Your task to perform on an android device: Add logitech g903 to the cart on costco Image 0: 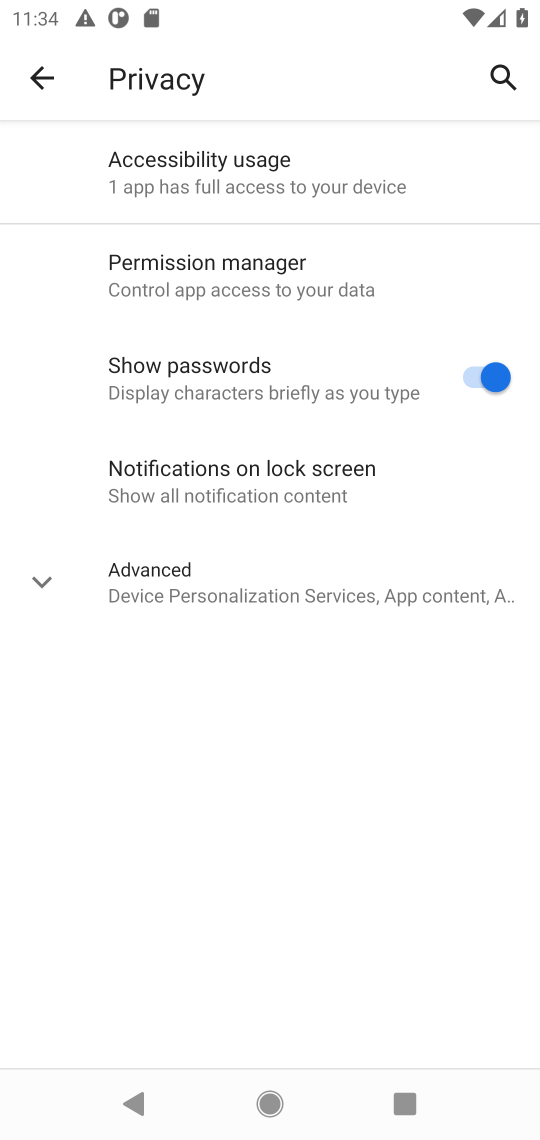
Step 0: press home button
Your task to perform on an android device: Add logitech g903 to the cart on costco Image 1: 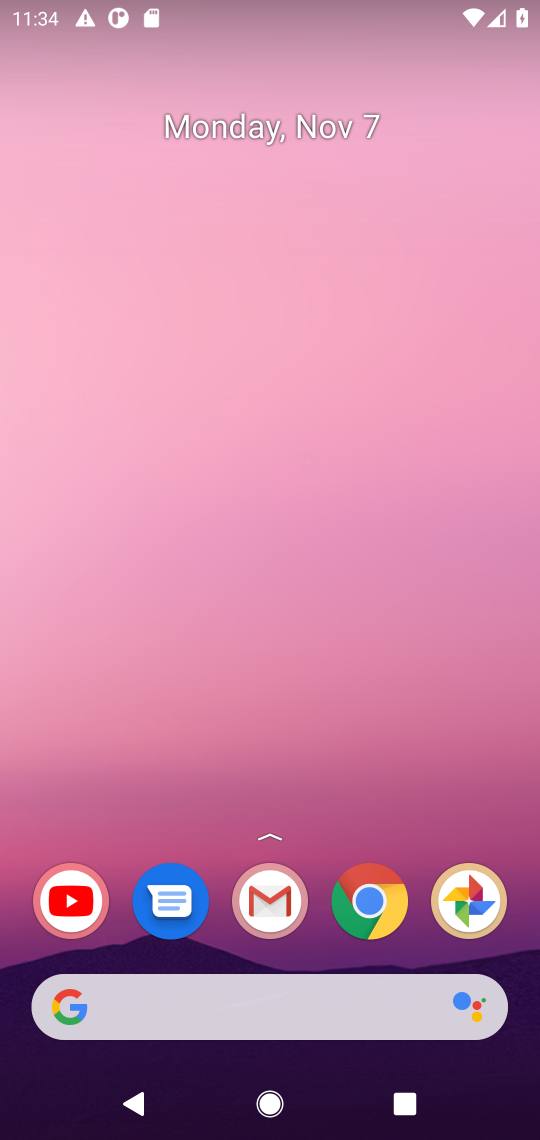
Step 1: click (356, 924)
Your task to perform on an android device: Add logitech g903 to the cart on costco Image 2: 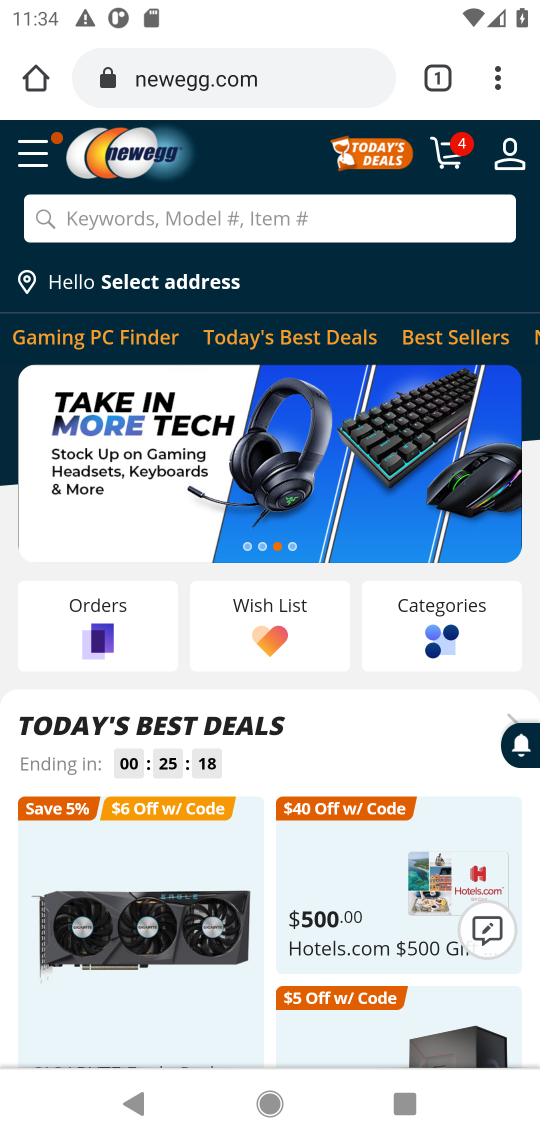
Step 2: click (236, 93)
Your task to perform on an android device: Add logitech g903 to the cart on costco Image 3: 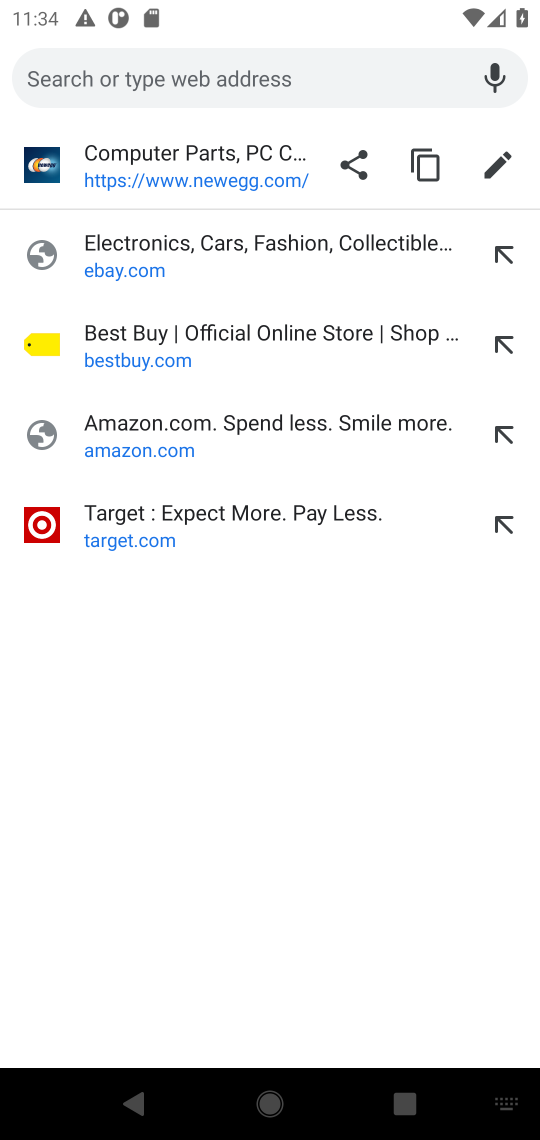
Step 3: type "costco"
Your task to perform on an android device: Add logitech g903 to the cart on costco Image 4: 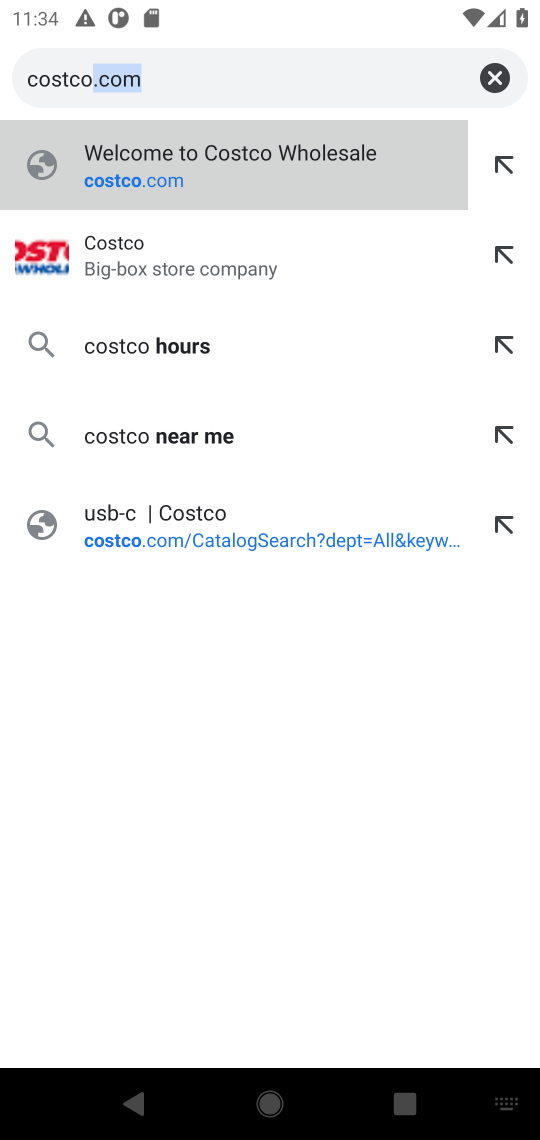
Step 4: click (300, 150)
Your task to perform on an android device: Add logitech g903 to the cart on costco Image 5: 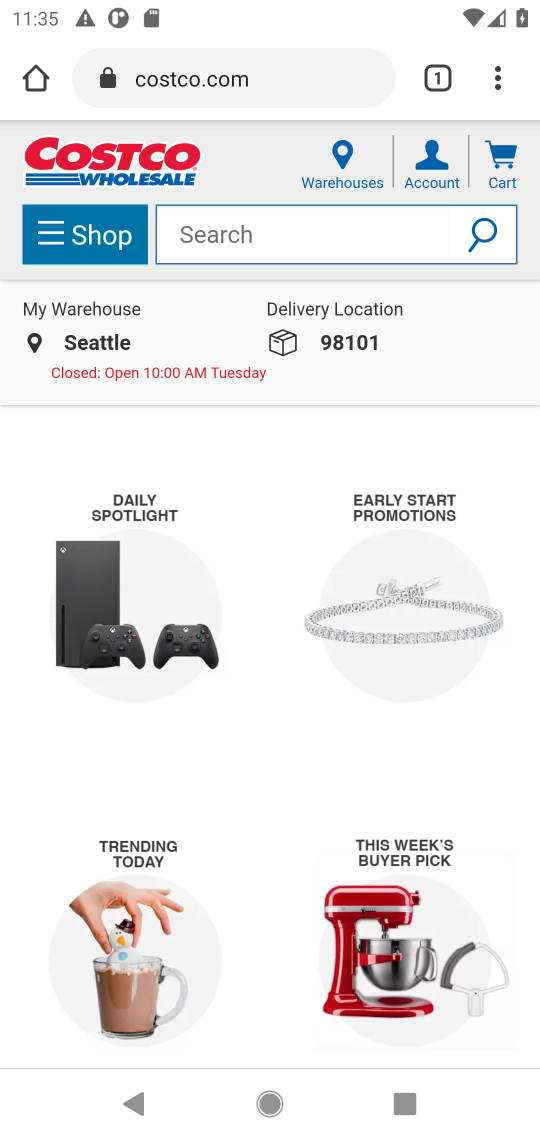
Step 5: click (312, 236)
Your task to perform on an android device: Add logitech g903 to the cart on costco Image 6: 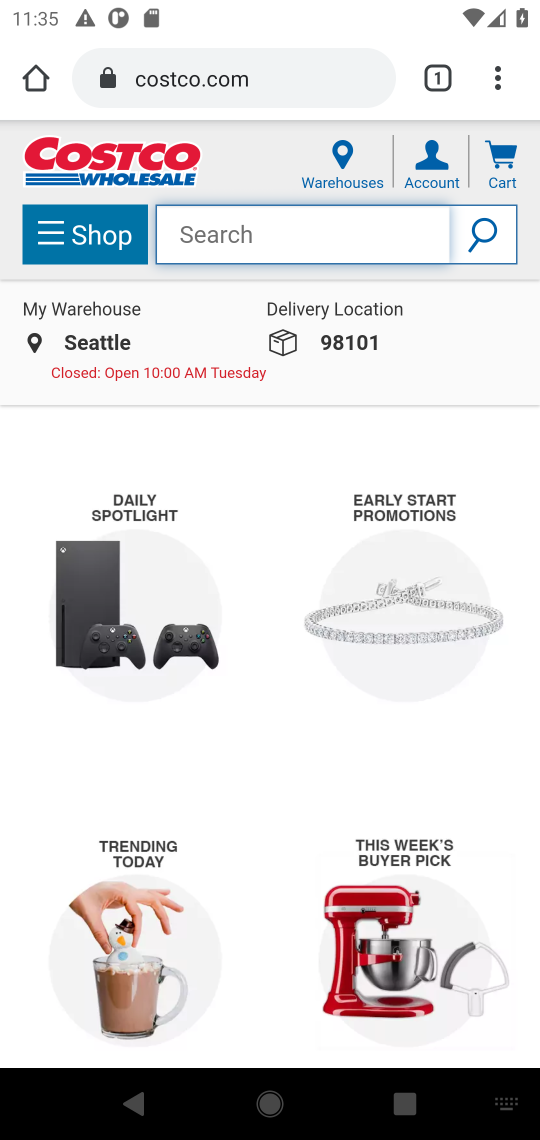
Step 6: type "logitech g903"
Your task to perform on an android device: Add logitech g903 to the cart on costco Image 7: 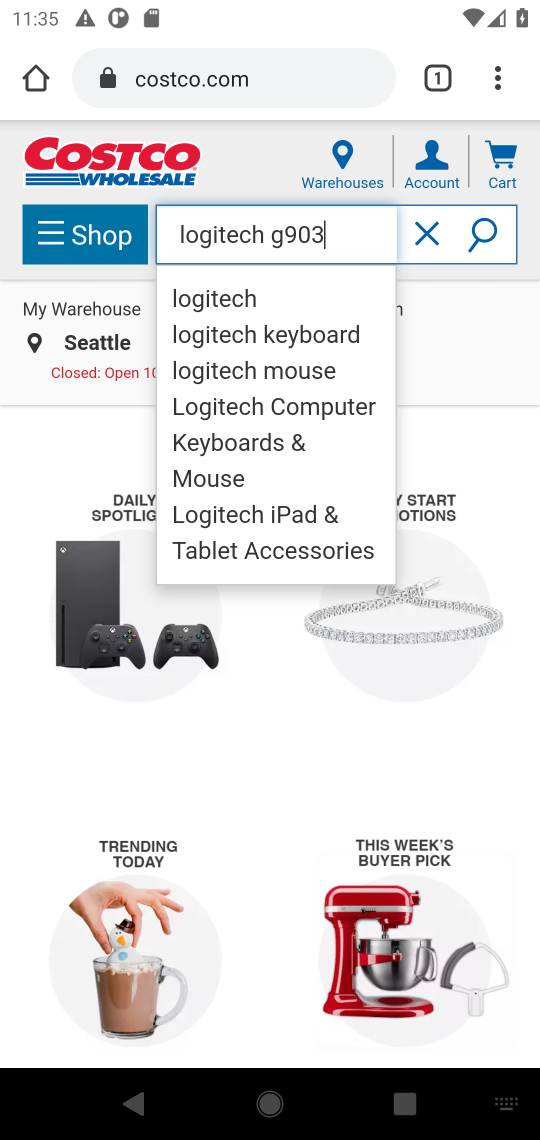
Step 7: press enter
Your task to perform on an android device: Add logitech g903 to the cart on costco Image 8: 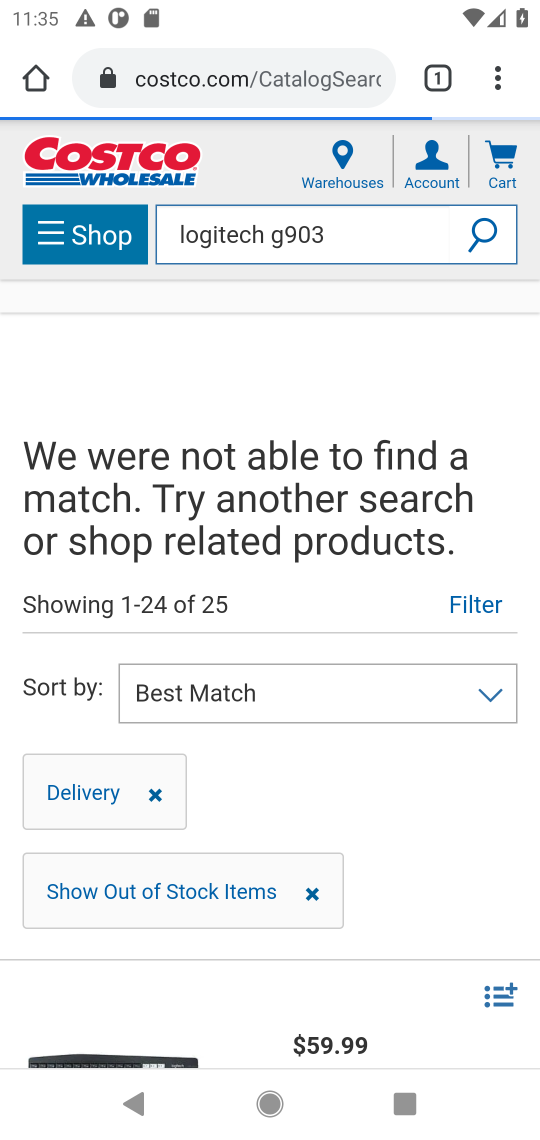
Step 8: task complete